Your task to perform on an android device: find snoozed emails in the gmail app Image 0: 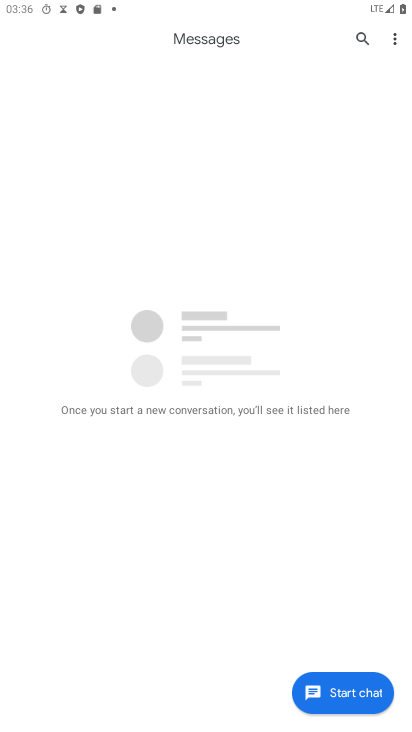
Step 0: press home button
Your task to perform on an android device: find snoozed emails in the gmail app Image 1: 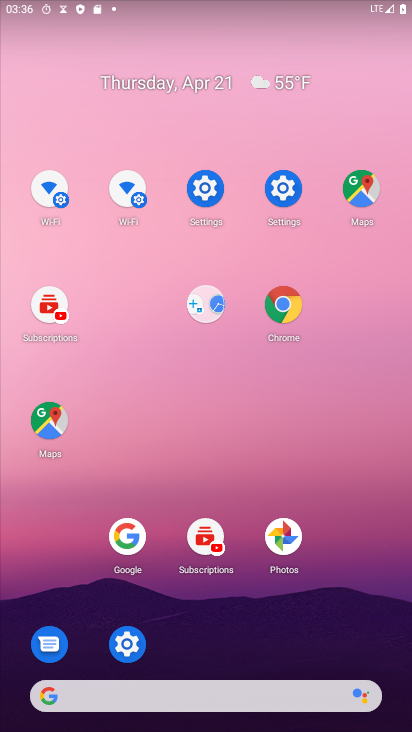
Step 1: drag from (201, 425) to (126, 10)
Your task to perform on an android device: find snoozed emails in the gmail app Image 2: 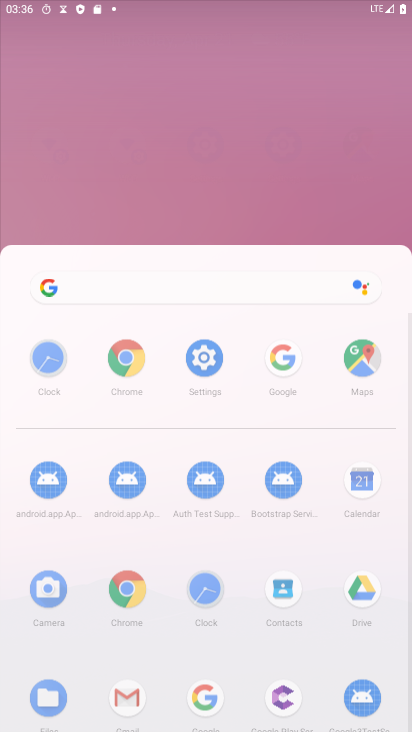
Step 2: drag from (223, 344) to (62, 3)
Your task to perform on an android device: find snoozed emails in the gmail app Image 3: 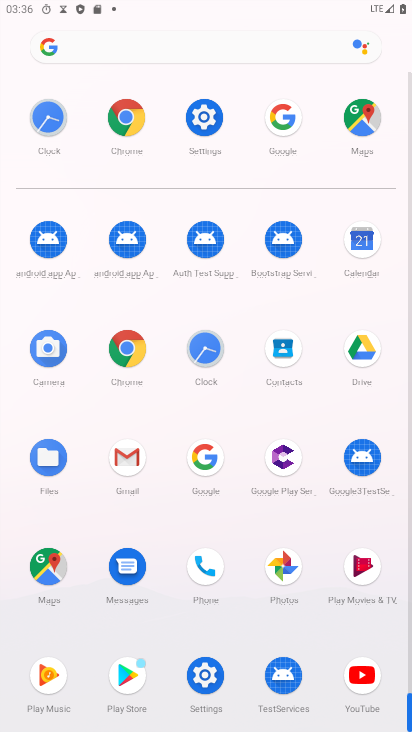
Step 3: click (123, 460)
Your task to perform on an android device: find snoozed emails in the gmail app Image 4: 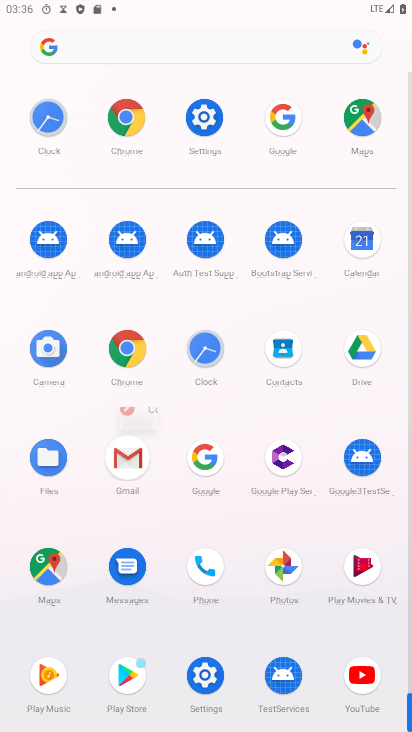
Step 4: click (121, 457)
Your task to perform on an android device: find snoozed emails in the gmail app Image 5: 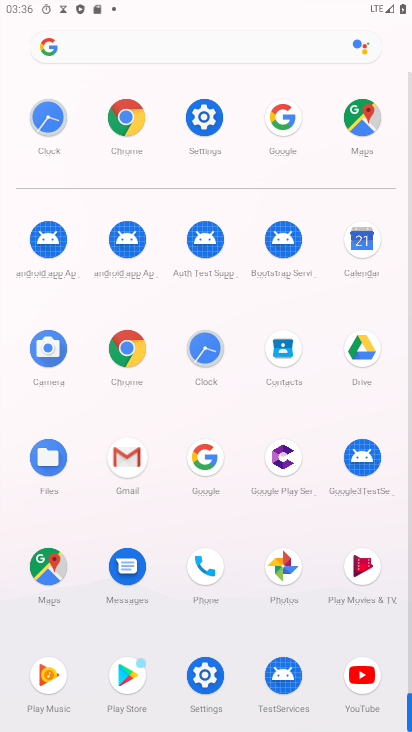
Step 5: click (124, 447)
Your task to perform on an android device: find snoozed emails in the gmail app Image 6: 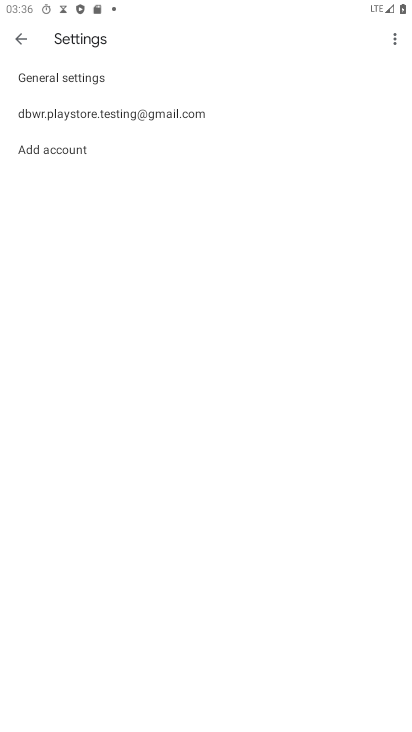
Step 6: click (125, 453)
Your task to perform on an android device: find snoozed emails in the gmail app Image 7: 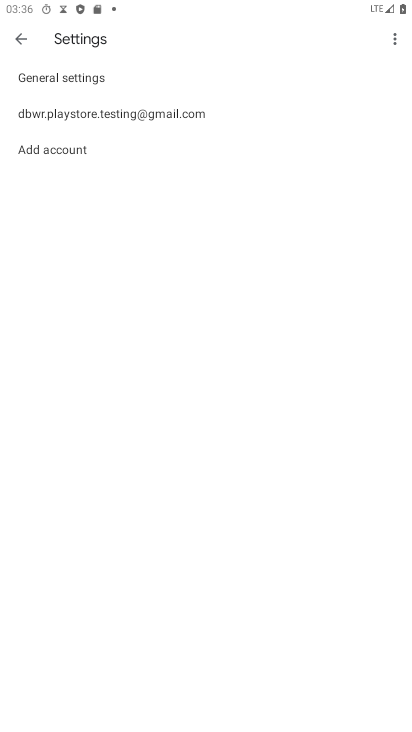
Step 7: click (125, 453)
Your task to perform on an android device: find snoozed emails in the gmail app Image 8: 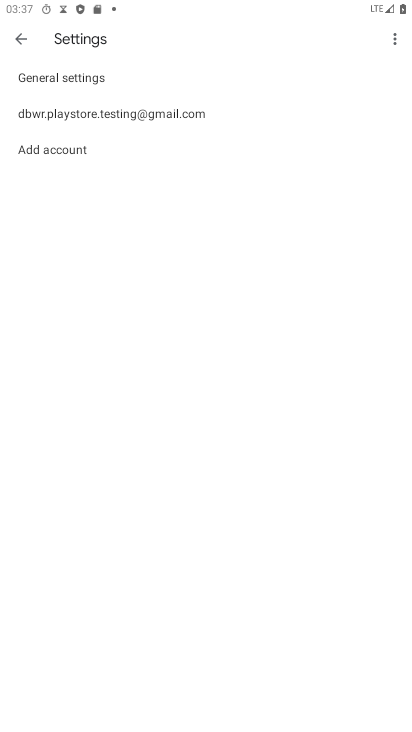
Step 8: click (20, 39)
Your task to perform on an android device: find snoozed emails in the gmail app Image 9: 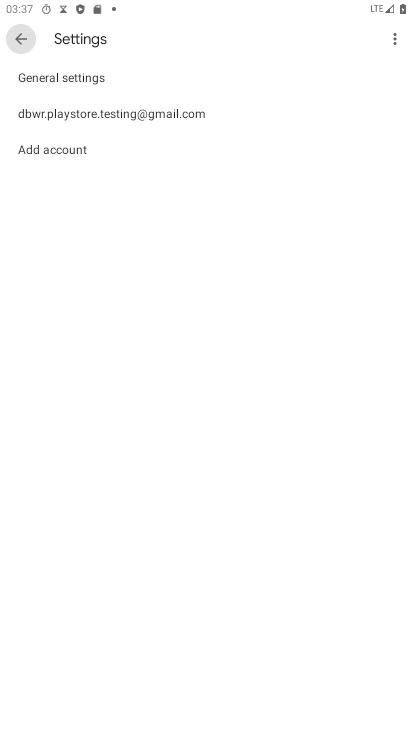
Step 9: click (20, 39)
Your task to perform on an android device: find snoozed emails in the gmail app Image 10: 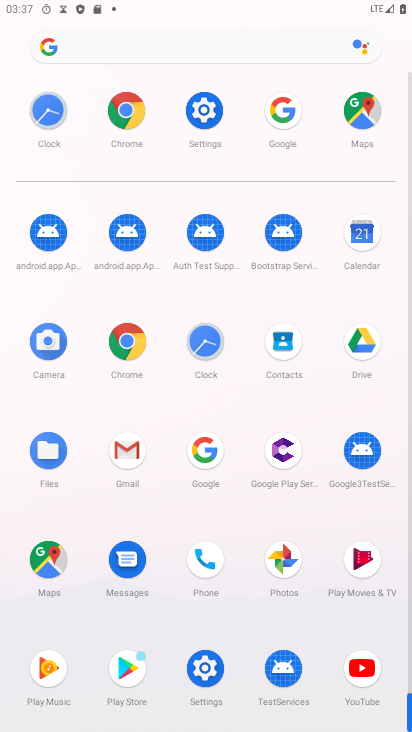
Step 10: click (118, 449)
Your task to perform on an android device: find snoozed emails in the gmail app Image 11: 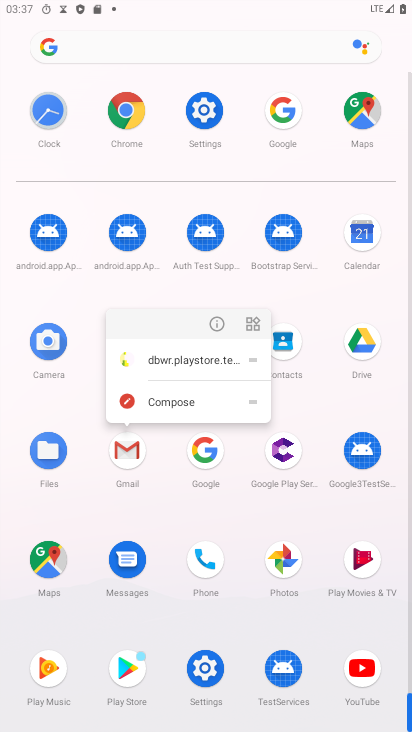
Step 11: click (121, 450)
Your task to perform on an android device: find snoozed emails in the gmail app Image 12: 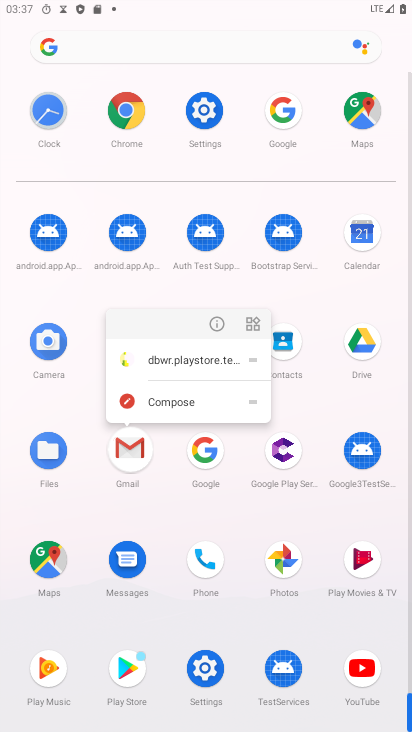
Step 12: click (124, 449)
Your task to perform on an android device: find snoozed emails in the gmail app Image 13: 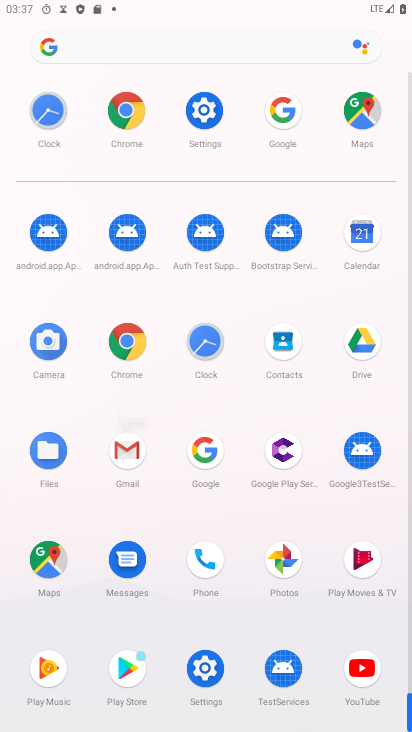
Step 13: click (124, 449)
Your task to perform on an android device: find snoozed emails in the gmail app Image 14: 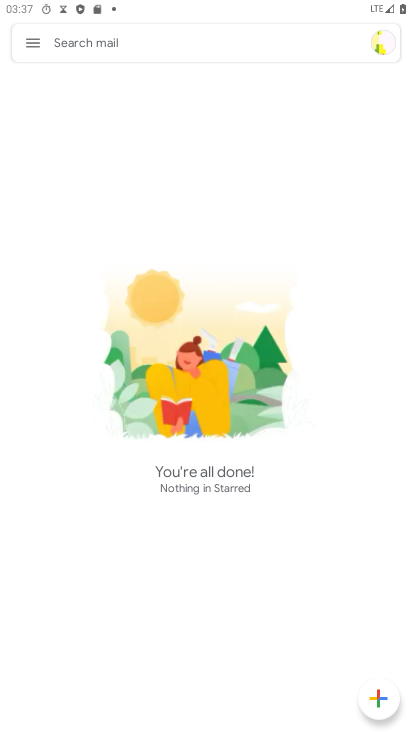
Step 14: click (30, 44)
Your task to perform on an android device: find snoozed emails in the gmail app Image 15: 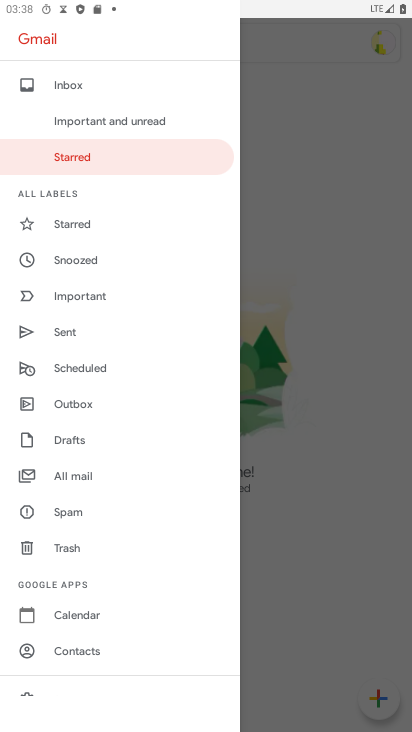
Step 15: click (67, 255)
Your task to perform on an android device: find snoozed emails in the gmail app Image 16: 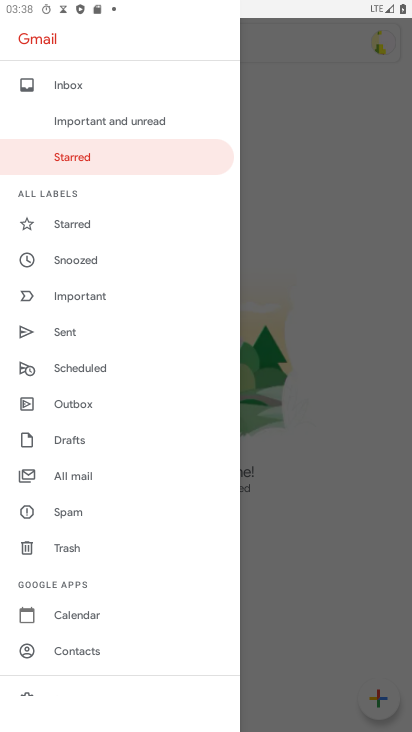
Step 16: click (92, 257)
Your task to perform on an android device: find snoozed emails in the gmail app Image 17: 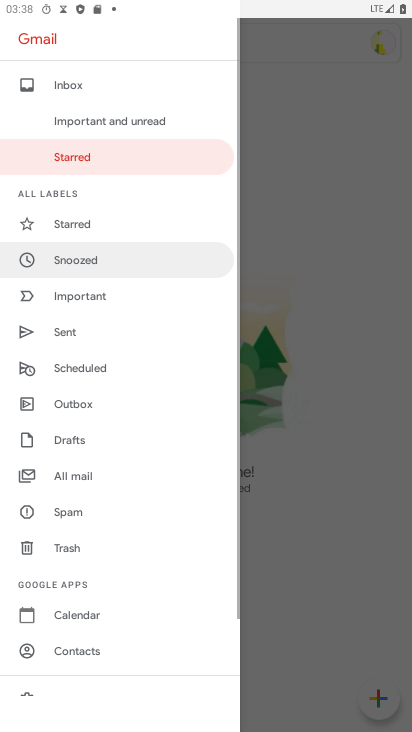
Step 17: click (92, 258)
Your task to perform on an android device: find snoozed emails in the gmail app Image 18: 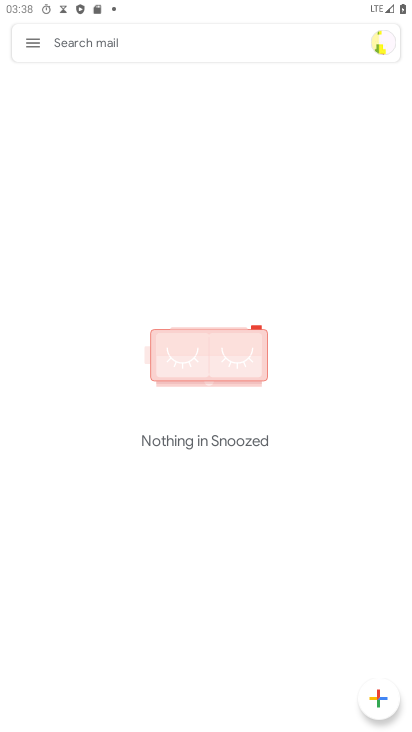
Step 18: click (31, 39)
Your task to perform on an android device: find snoozed emails in the gmail app Image 19: 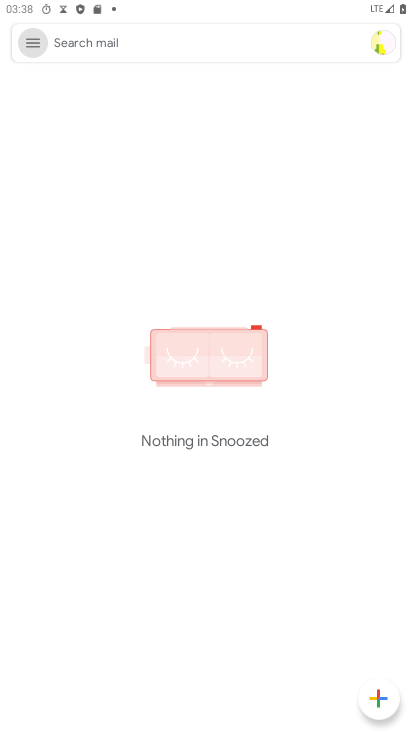
Step 19: click (31, 39)
Your task to perform on an android device: find snoozed emails in the gmail app Image 20: 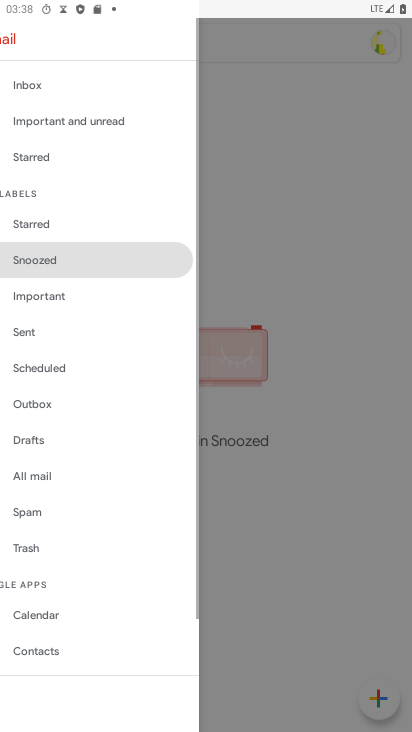
Step 20: click (31, 39)
Your task to perform on an android device: find snoozed emails in the gmail app Image 21: 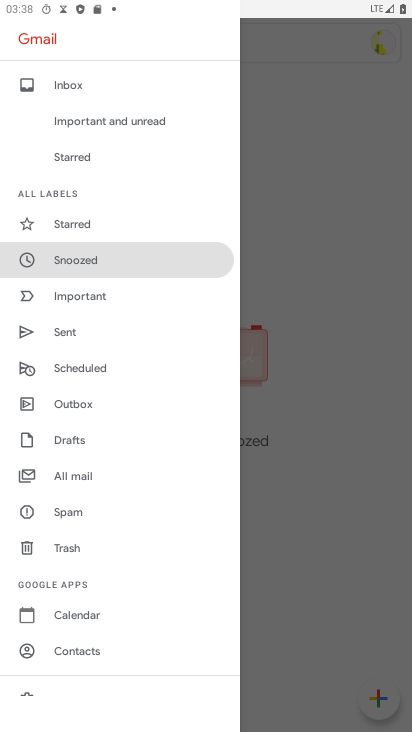
Step 21: click (65, 266)
Your task to perform on an android device: find snoozed emails in the gmail app Image 22: 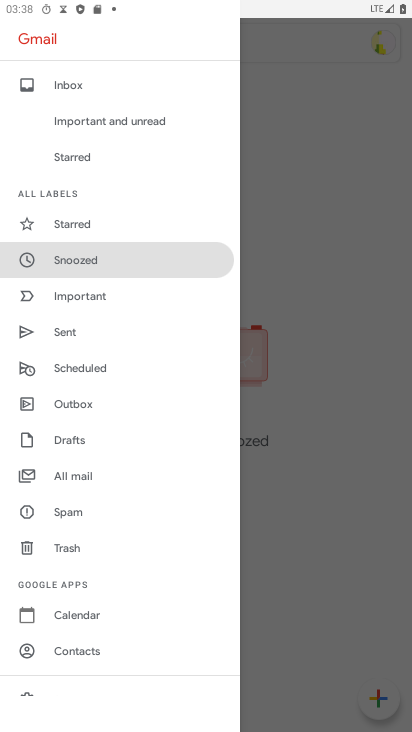
Step 22: click (65, 266)
Your task to perform on an android device: find snoozed emails in the gmail app Image 23: 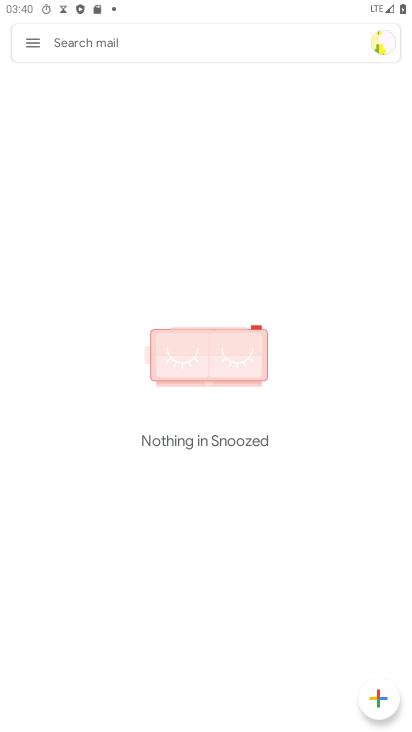
Step 23: task complete